Your task to perform on an android device: Open Google Maps Image 0: 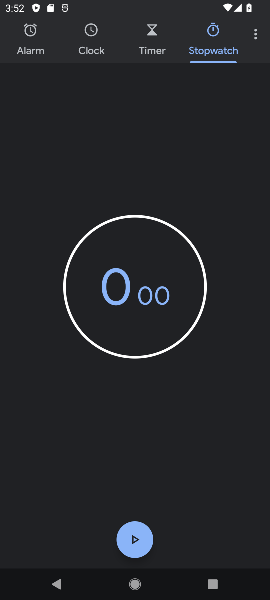
Step 0: press back button
Your task to perform on an android device: Open Google Maps Image 1: 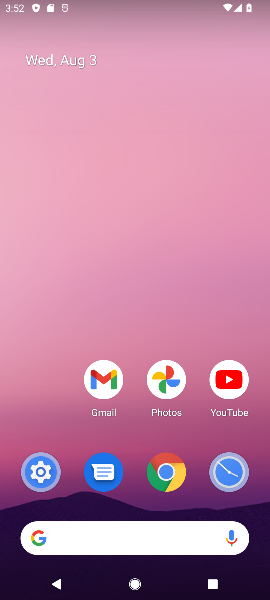
Step 1: drag from (56, 394) to (124, 5)
Your task to perform on an android device: Open Google Maps Image 2: 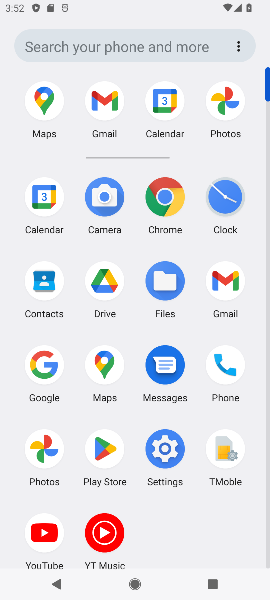
Step 2: click (106, 367)
Your task to perform on an android device: Open Google Maps Image 3: 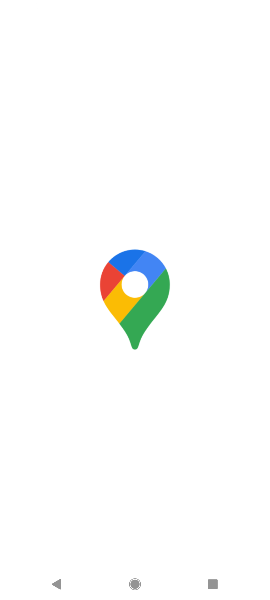
Step 3: task complete